Your task to perform on an android device: toggle location history Image 0: 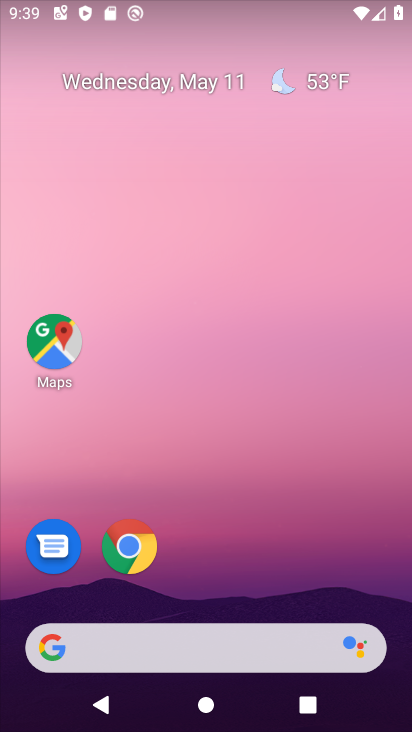
Step 0: drag from (389, 635) to (233, 47)
Your task to perform on an android device: toggle location history Image 1: 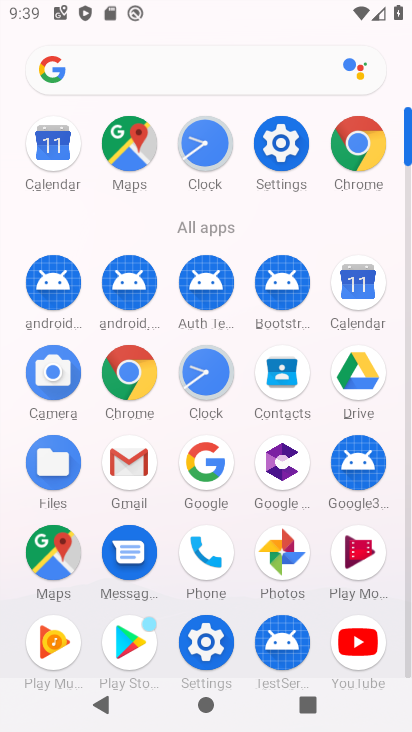
Step 1: click (283, 149)
Your task to perform on an android device: toggle location history Image 2: 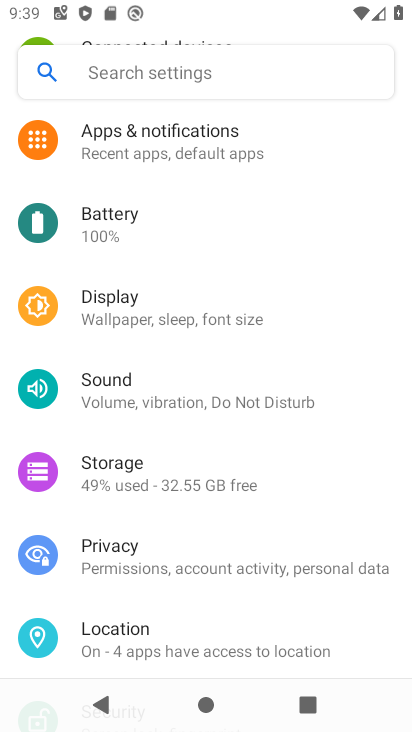
Step 2: click (176, 620)
Your task to perform on an android device: toggle location history Image 3: 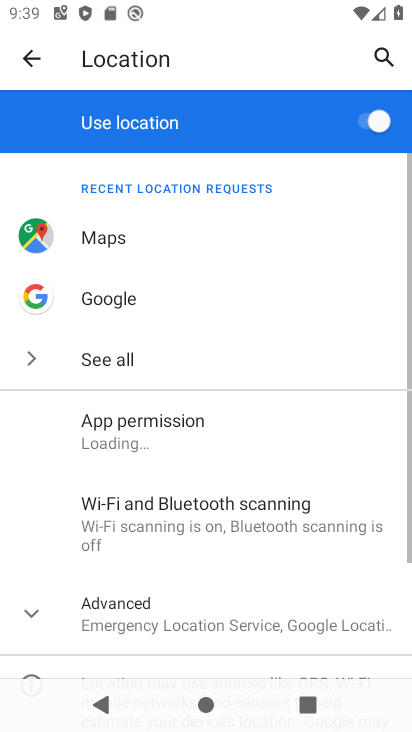
Step 3: click (176, 621)
Your task to perform on an android device: toggle location history Image 4: 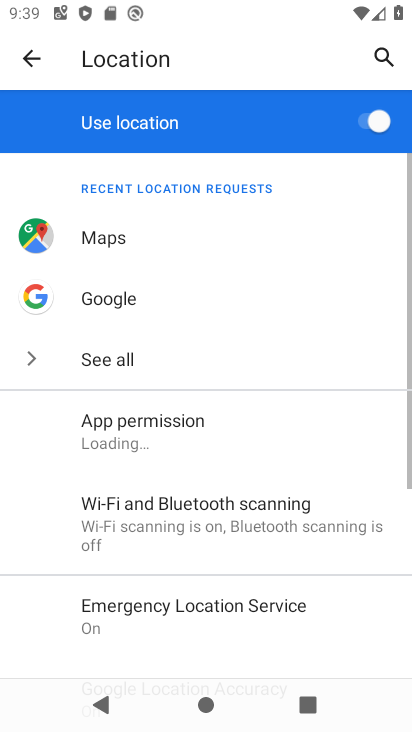
Step 4: drag from (176, 621) to (221, 273)
Your task to perform on an android device: toggle location history Image 5: 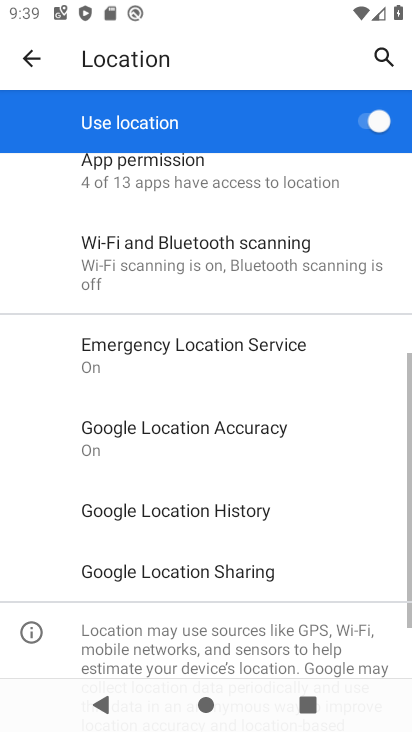
Step 5: click (203, 516)
Your task to perform on an android device: toggle location history Image 6: 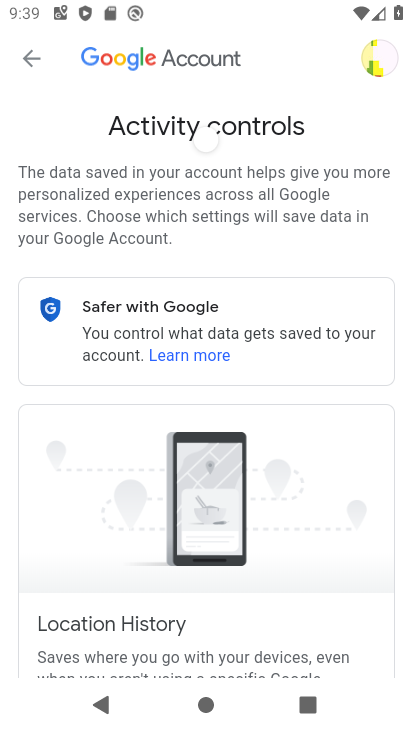
Step 6: drag from (322, 641) to (276, 213)
Your task to perform on an android device: toggle location history Image 7: 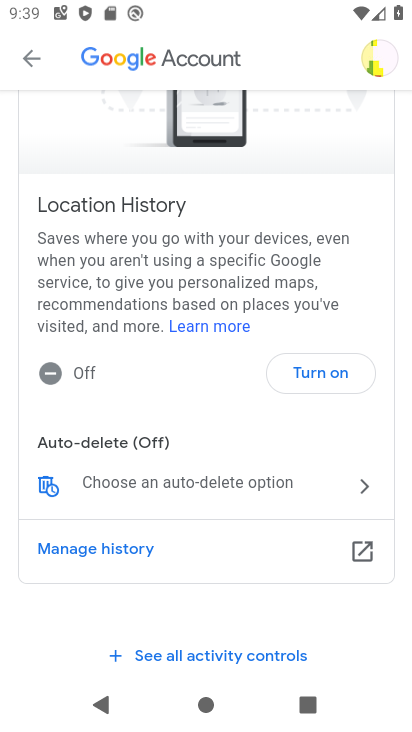
Step 7: click (323, 374)
Your task to perform on an android device: toggle location history Image 8: 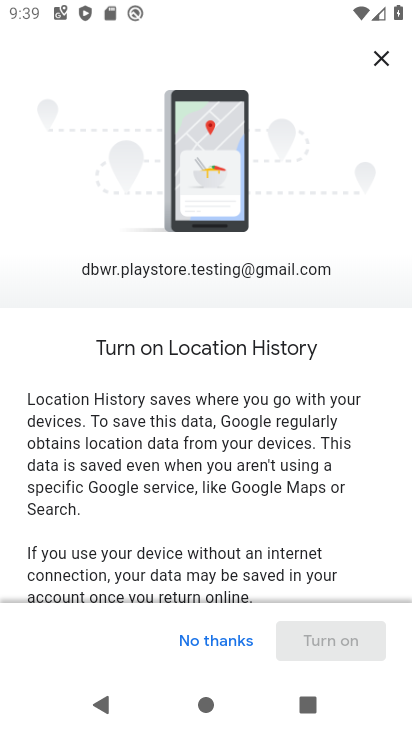
Step 8: task complete